Your task to perform on an android device: Do I have any events this weekend? Image 0: 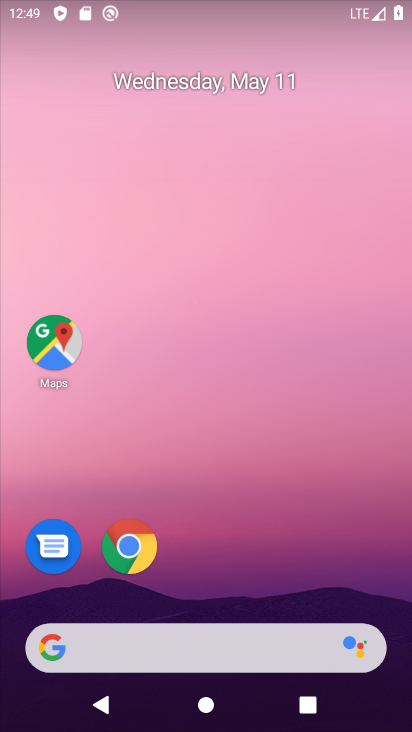
Step 0: click (180, 379)
Your task to perform on an android device: Do I have any events this weekend? Image 1: 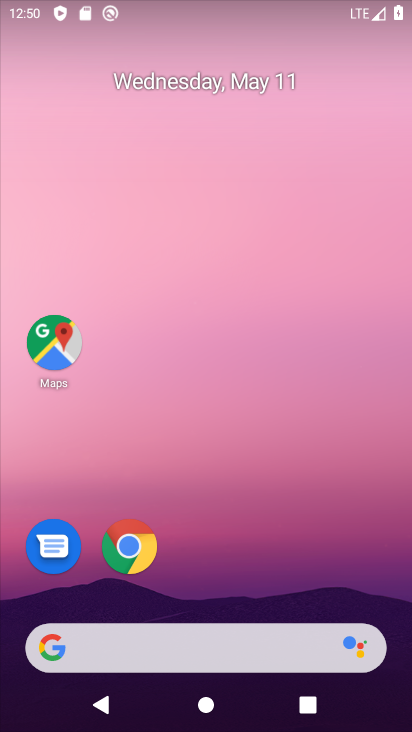
Step 1: drag from (251, 686) to (181, 191)
Your task to perform on an android device: Do I have any events this weekend? Image 2: 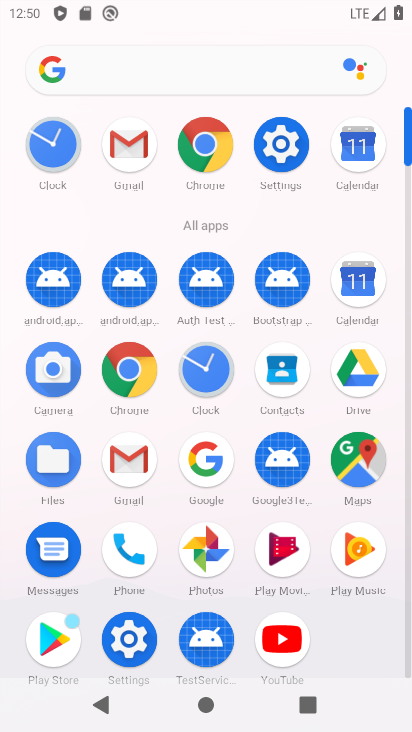
Step 2: click (347, 292)
Your task to perform on an android device: Do I have any events this weekend? Image 3: 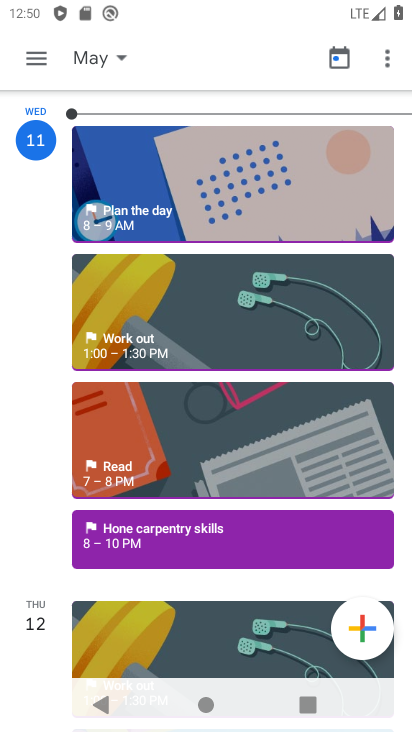
Step 3: click (36, 60)
Your task to perform on an android device: Do I have any events this weekend? Image 4: 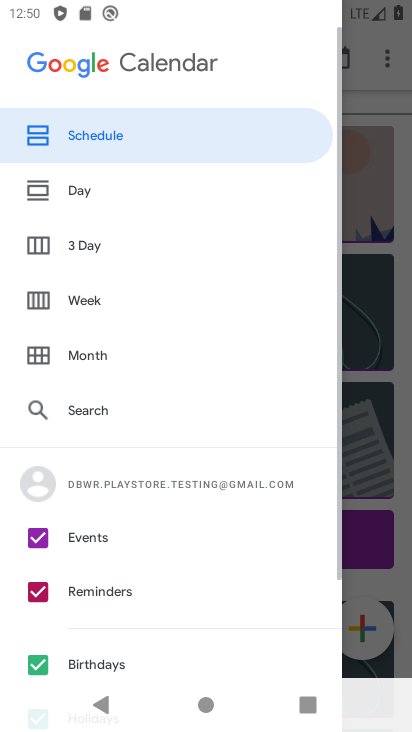
Step 4: click (94, 292)
Your task to perform on an android device: Do I have any events this weekend? Image 5: 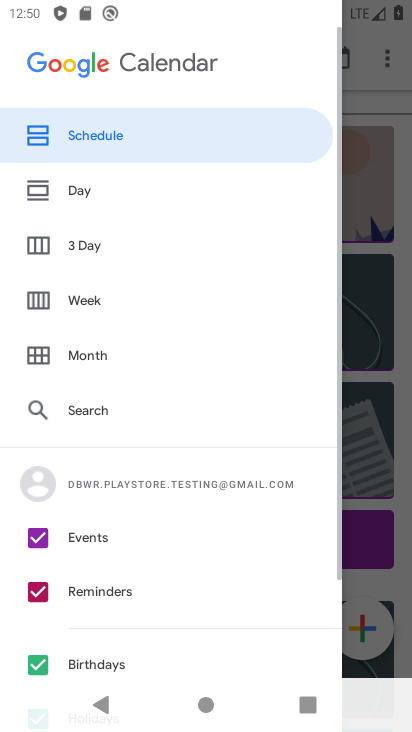
Step 5: click (91, 303)
Your task to perform on an android device: Do I have any events this weekend? Image 6: 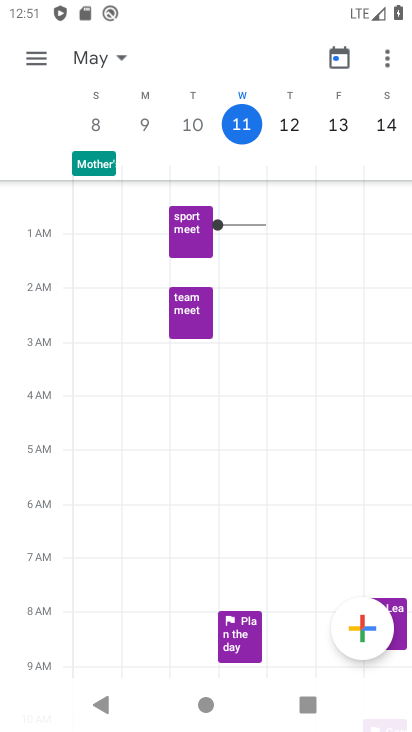
Step 6: task complete